Your task to perform on an android device: Turn off the flashlight Image 0: 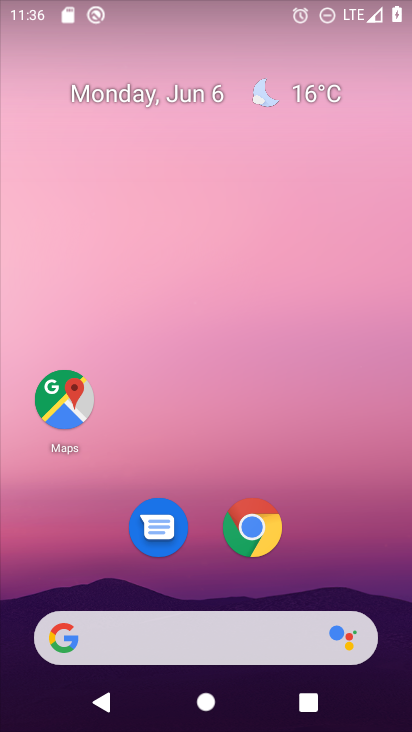
Step 0: drag from (210, 2) to (252, 367)
Your task to perform on an android device: Turn off the flashlight Image 1: 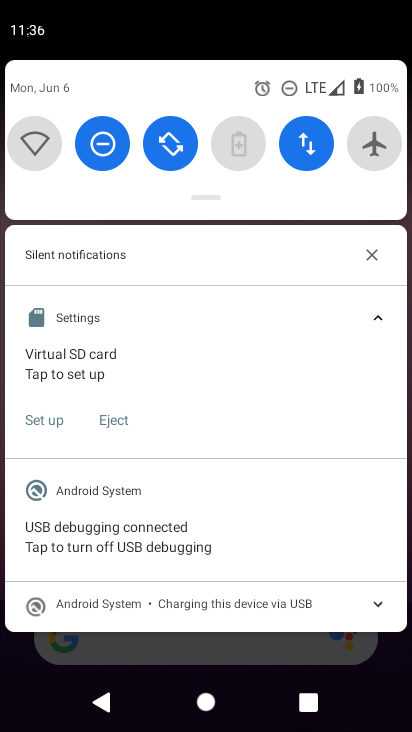
Step 1: drag from (202, 102) to (223, 400)
Your task to perform on an android device: Turn off the flashlight Image 2: 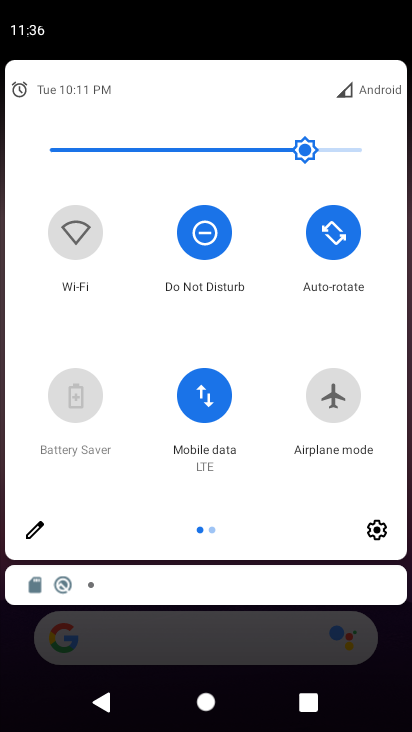
Step 2: click (35, 529)
Your task to perform on an android device: Turn off the flashlight Image 3: 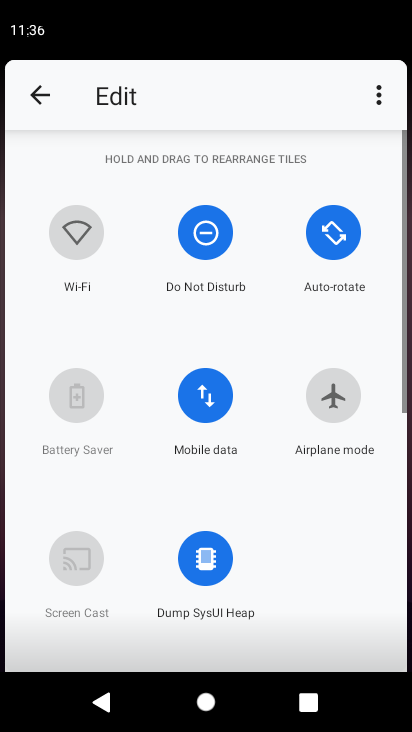
Step 3: task complete